Your task to perform on an android device: Open the stopwatch Image 0: 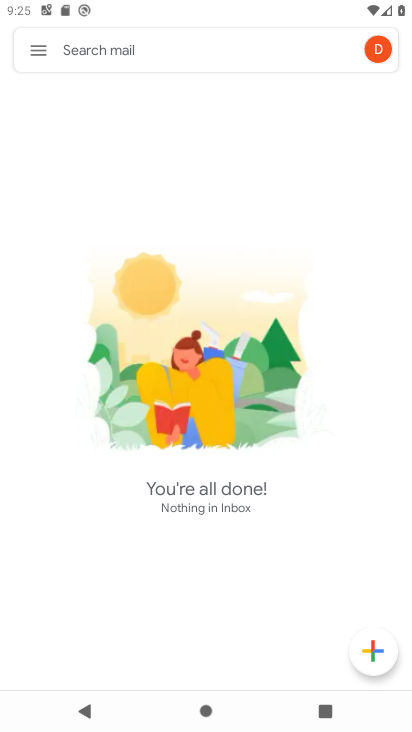
Step 0: press home button
Your task to perform on an android device: Open the stopwatch Image 1: 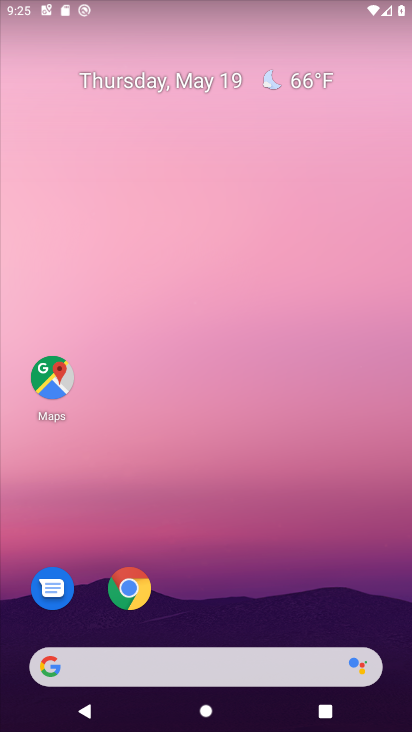
Step 1: drag from (370, 608) to (363, 324)
Your task to perform on an android device: Open the stopwatch Image 2: 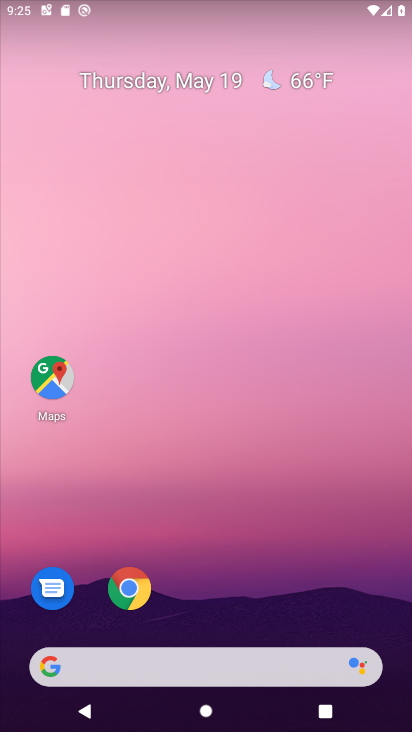
Step 2: drag from (395, 621) to (377, 228)
Your task to perform on an android device: Open the stopwatch Image 3: 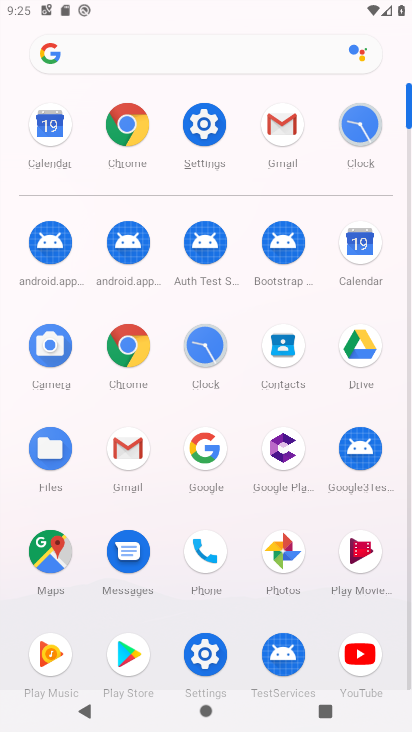
Step 3: click (195, 345)
Your task to perform on an android device: Open the stopwatch Image 4: 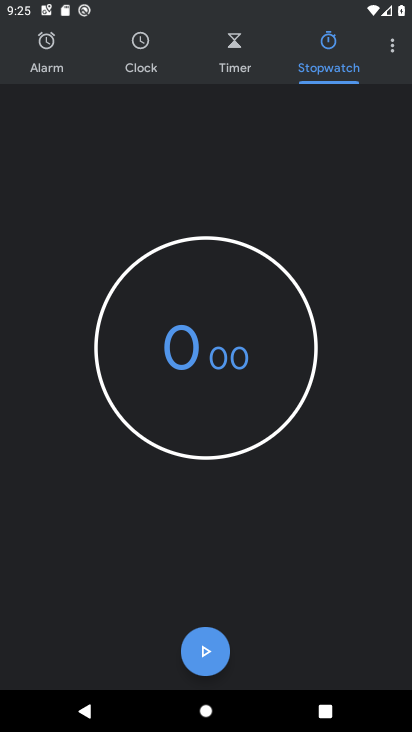
Step 4: task complete